Your task to perform on an android device: Open Reddit.com Image 0: 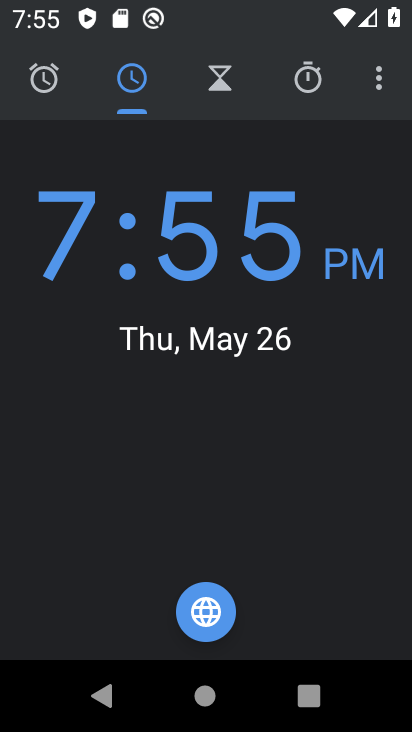
Step 0: press home button
Your task to perform on an android device: Open Reddit.com Image 1: 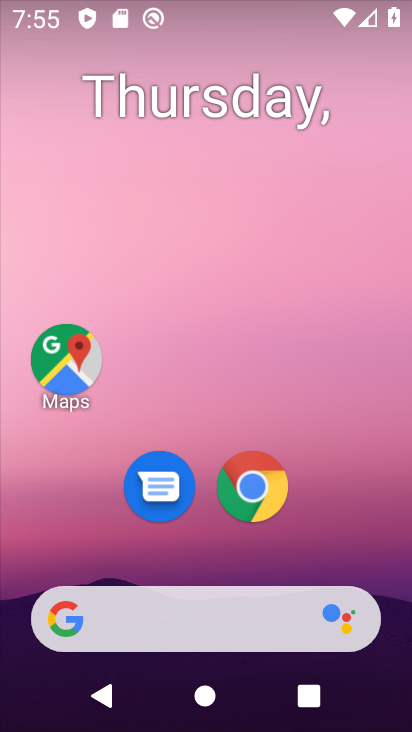
Step 1: drag from (188, 655) to (299, 15)
Your task to perform on an android device: Open Reddit.com Image 2: 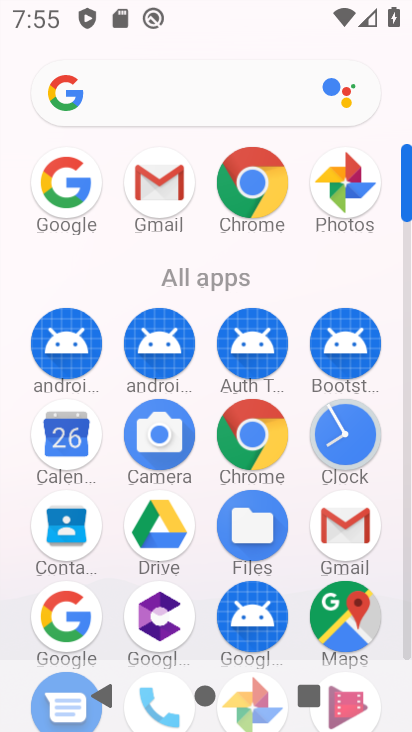
Step 2: click (267, 195)
Your task to perform on an android device: Open Reddit.com Image 3: 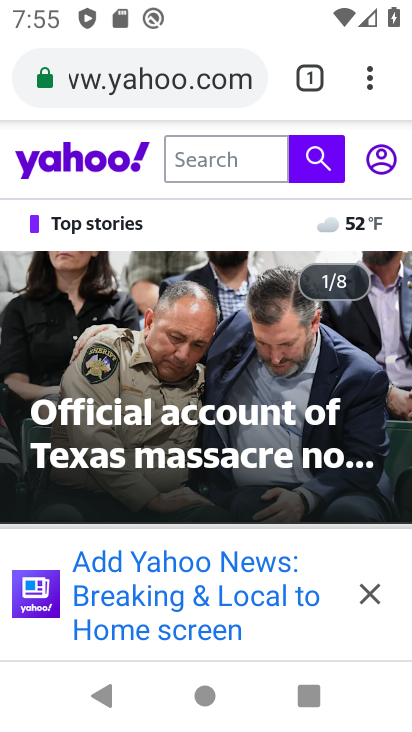
Step 3: click (180, 92)
Your task to perform on an android device: Open Reddit.com Image 4: 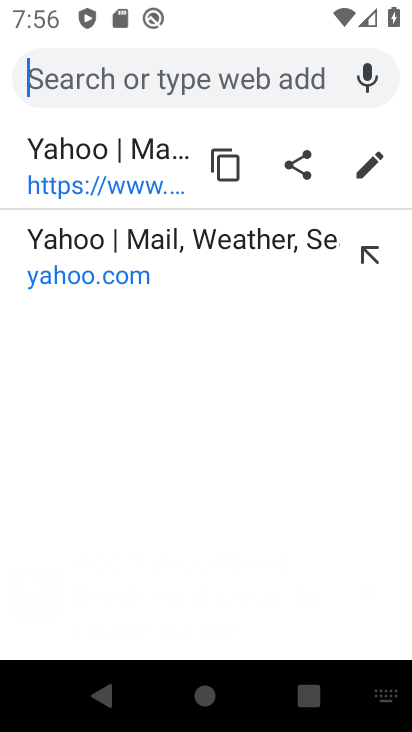
Step 4: type "resddit"
Your task to perform on an android device: Open Reddit.com Image 5: 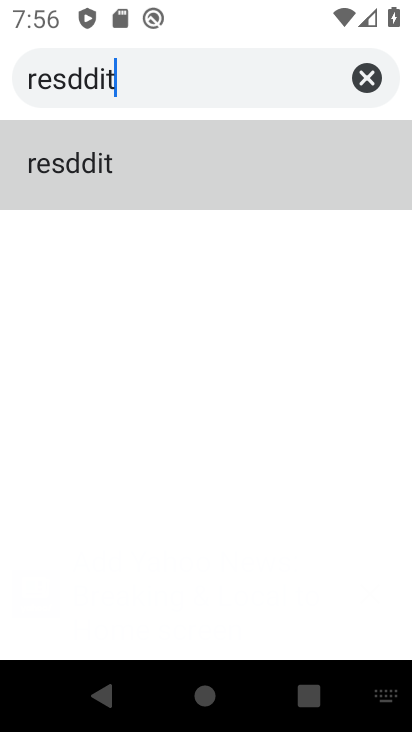
Step 5: click (373, 93)
Your task to perform on an android device: Open Reddit.com Image 6: 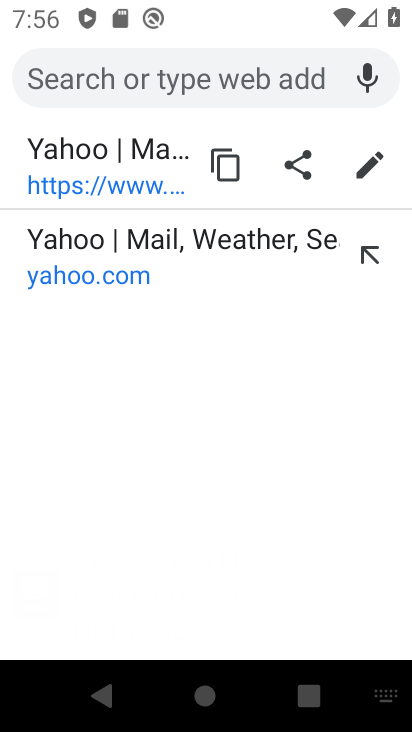
Step 6: type "reddit"
Your task to perform on an android device: Open Reddit.com Image 7: 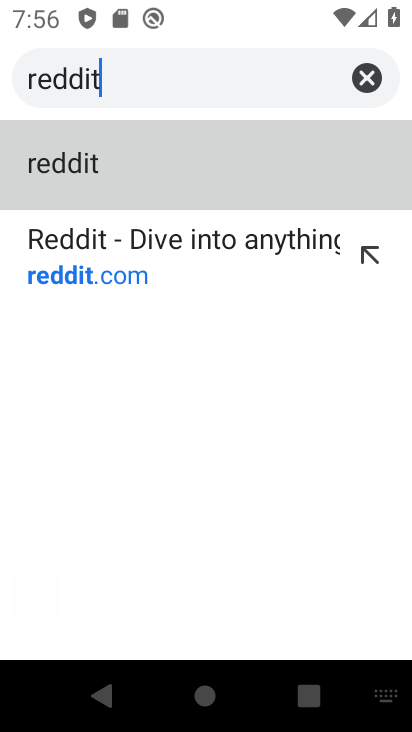
Step 7: click (271, 276)
Your task to perform on an android device: Open Reddit.com Image 8: 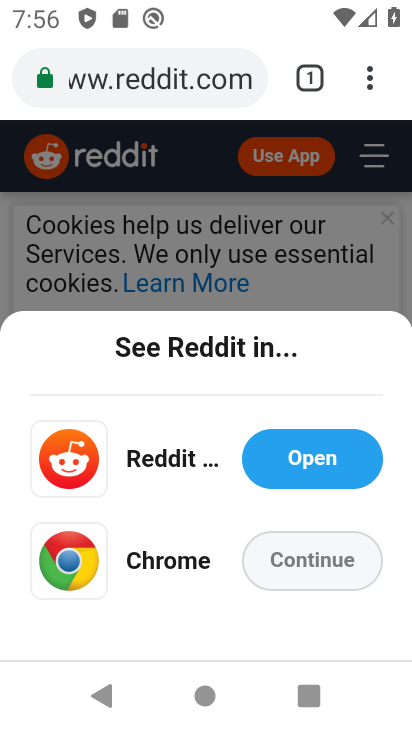
Step 8: task complete